Your task to perform on an android device: allow notifications from all sites in the chrome app Image 0: 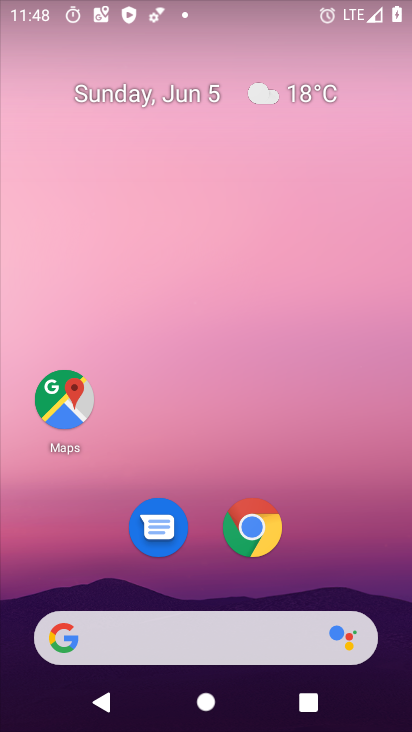
Step 0: click (258, 538)
Your task to perform on an android device: allow notifications from all sites in the chrome app Image 1: 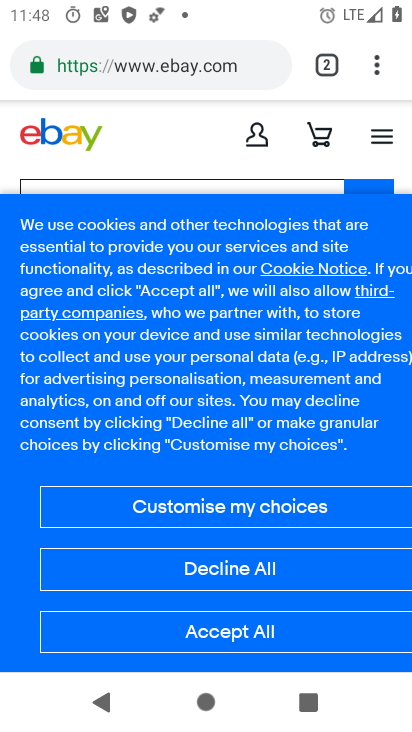
Step 1: click (378, 59)
Your task to perform on an android device: allow notifications from all sites in the chrome app Image 2: 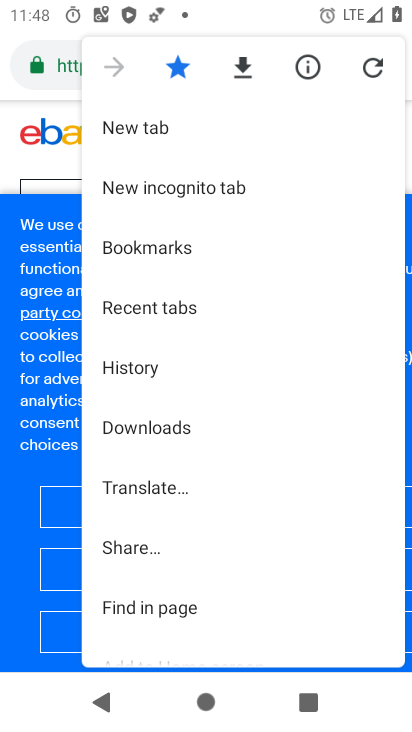
Step 2: drag from (218, 557) to (221, 95)
Your task to perform on an android device: allow notifications from all sites in the chrome app Image 3: 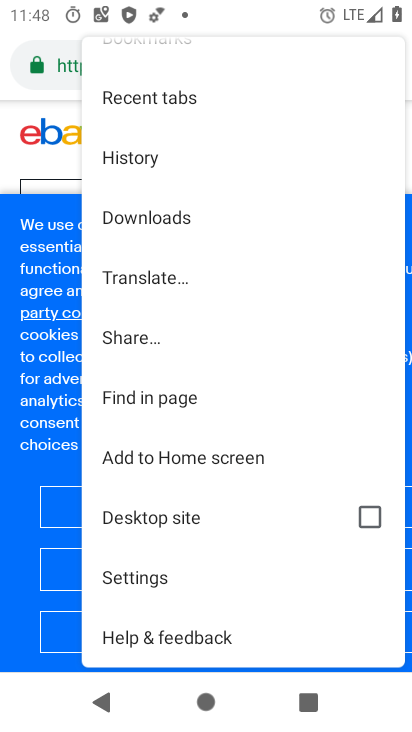
Step 3: click (205, 572)
Your task to perform on an android device: allow notifications from all sites in the chrome app Image 4: 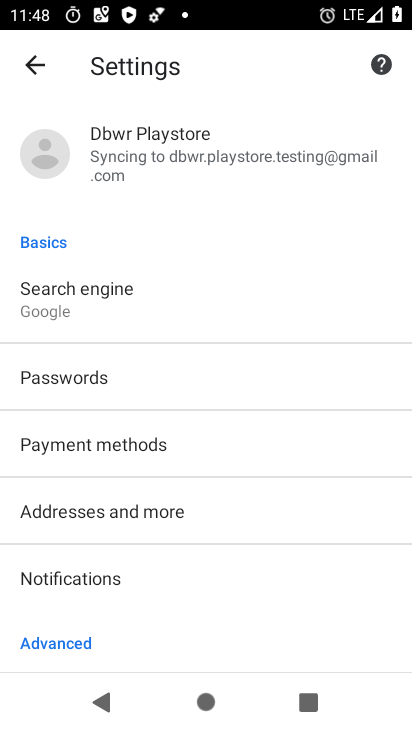
Step 4: drag from (169, 556) to (208, 90)
Your task to perform on an android device: allow notifications from all sites in the chrome app Image 5: 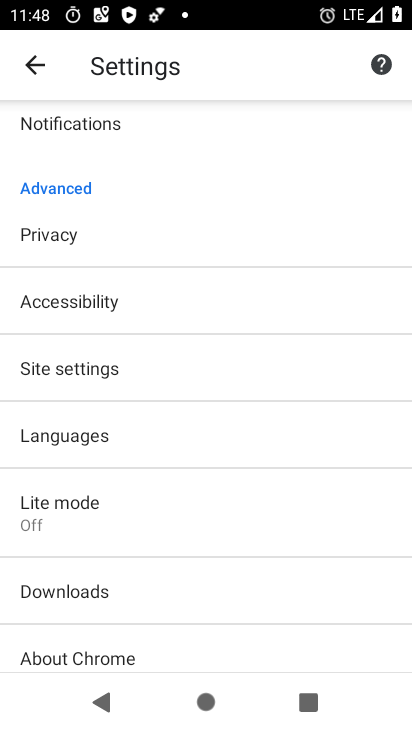
Step 5: click (177, 362)
Your task to perform on an android device: allow notifications from all sites in the chrome app Image 6: 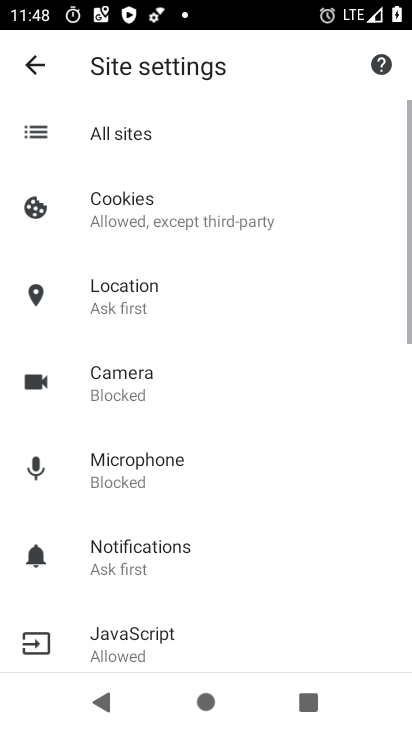
Step 6: click (182, 123)
Your task to perform on an android device: allow notifications from all sites in the chrome app Image 7: 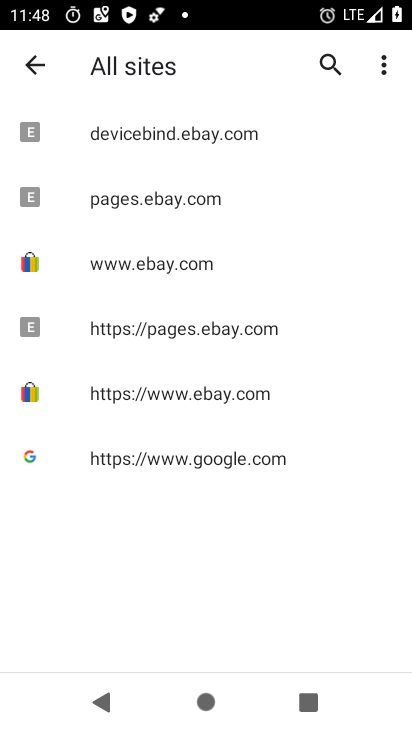
Step 7: click (211, 126)
Your task to perform on an android device: allow notifications from all sites in the chrome app Image 8: 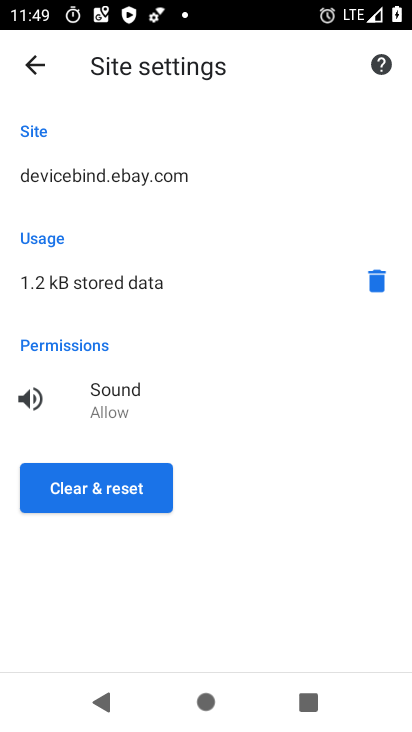
Step 8: task complete